Your task to perform on an android device: change the clock display to show seconds Image 0: 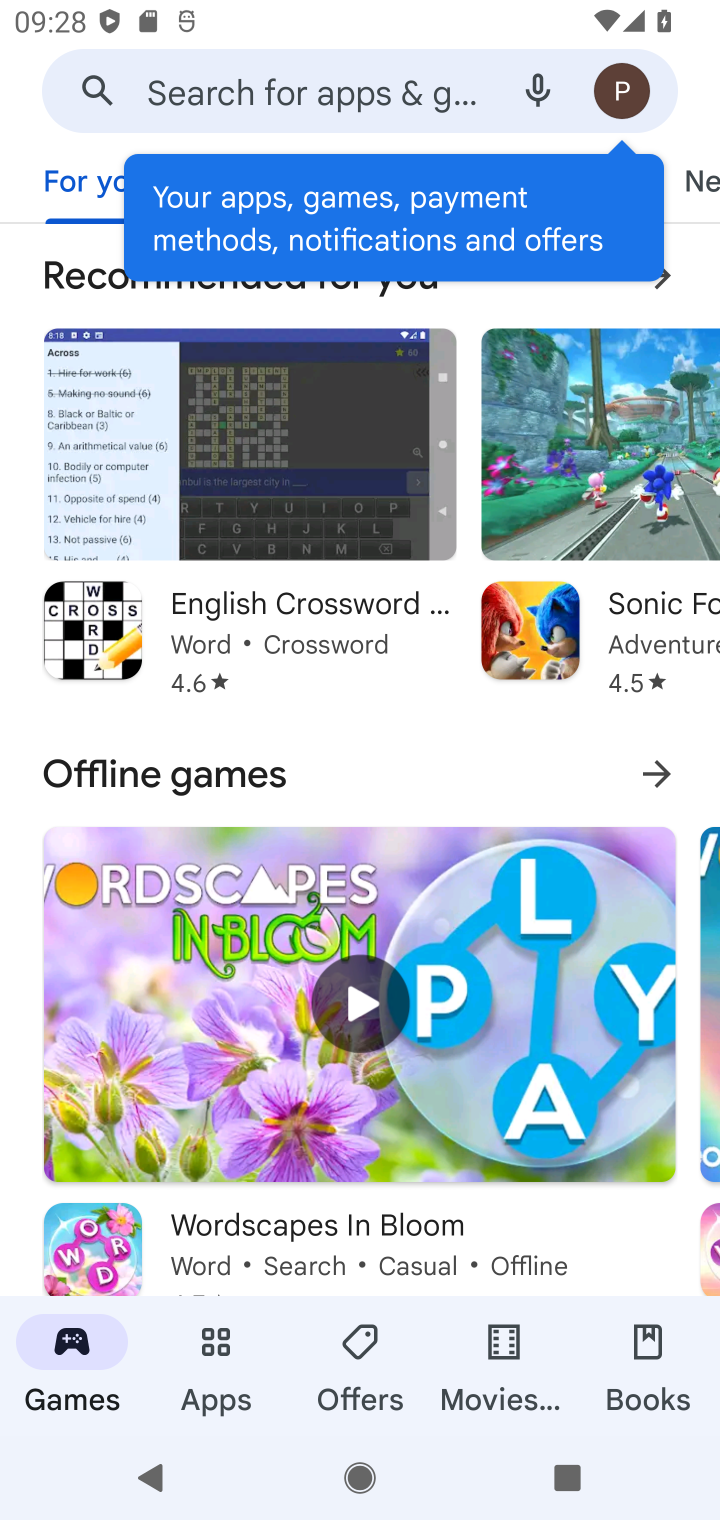
Step 0: press home button
Your task to perform on an android device: change the clock display to show seconds Image 1: 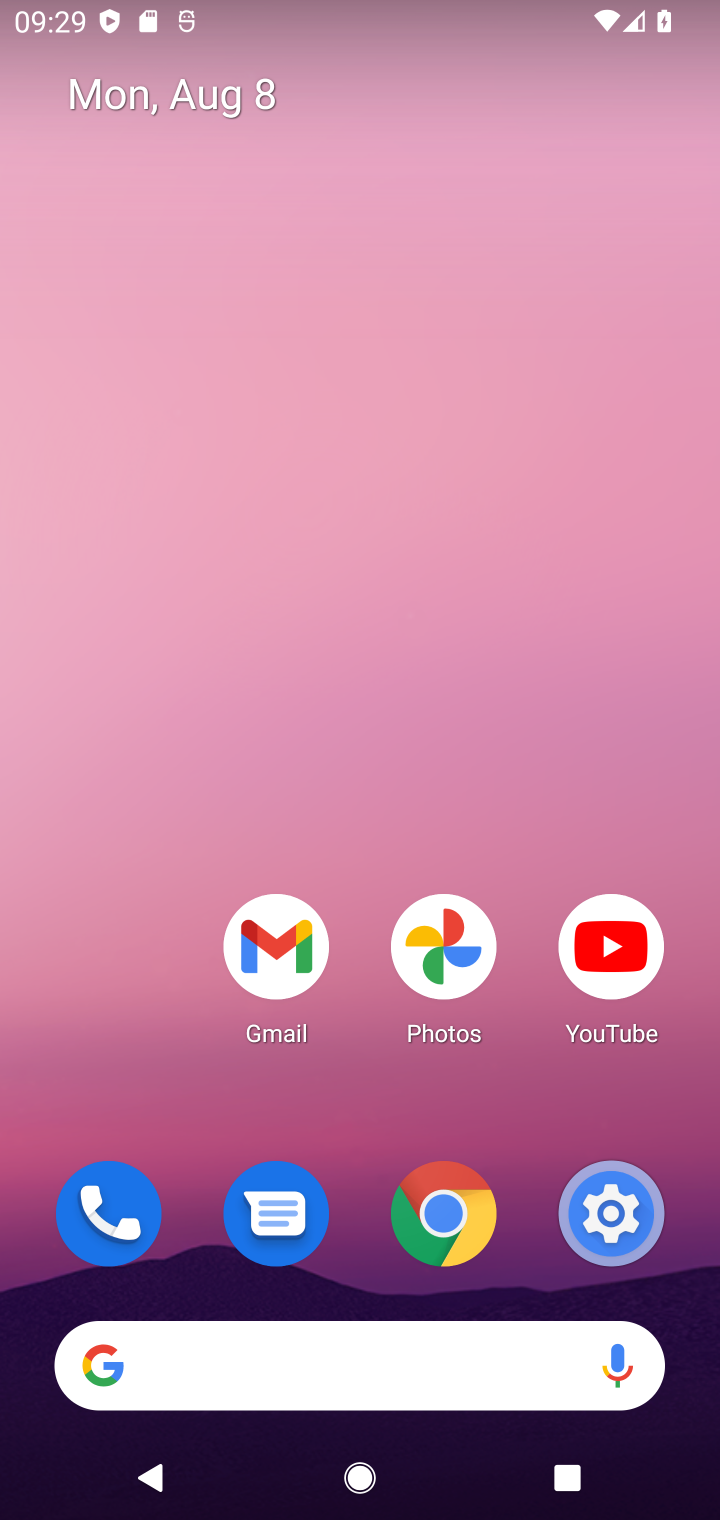
Step 1: drag from (320, 991) to (376, 5)
Your task to perform on an android device: change the clock display to show seconds Image 2: 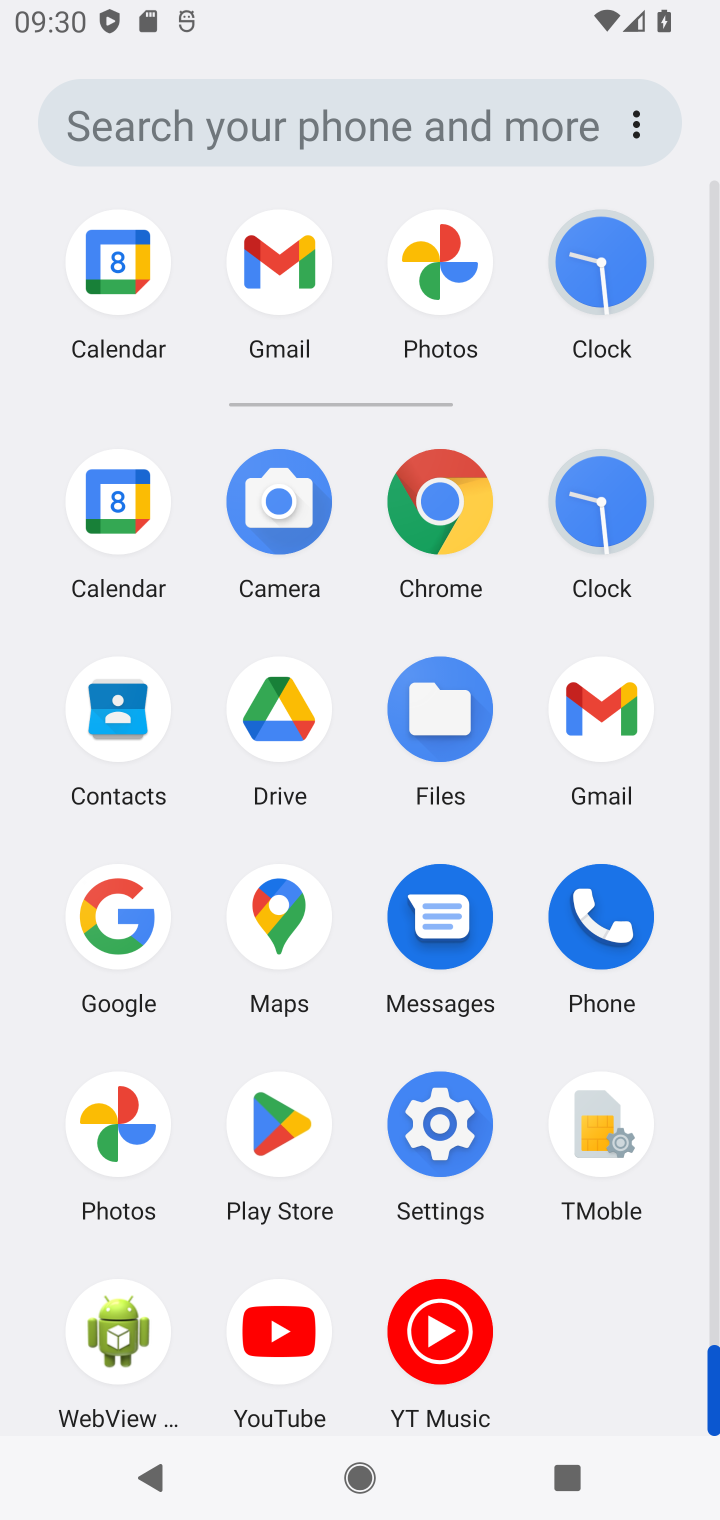
Step 2: click (601, 541)
Your task to perform on an android device: change the clock display to show seconds Image 3: 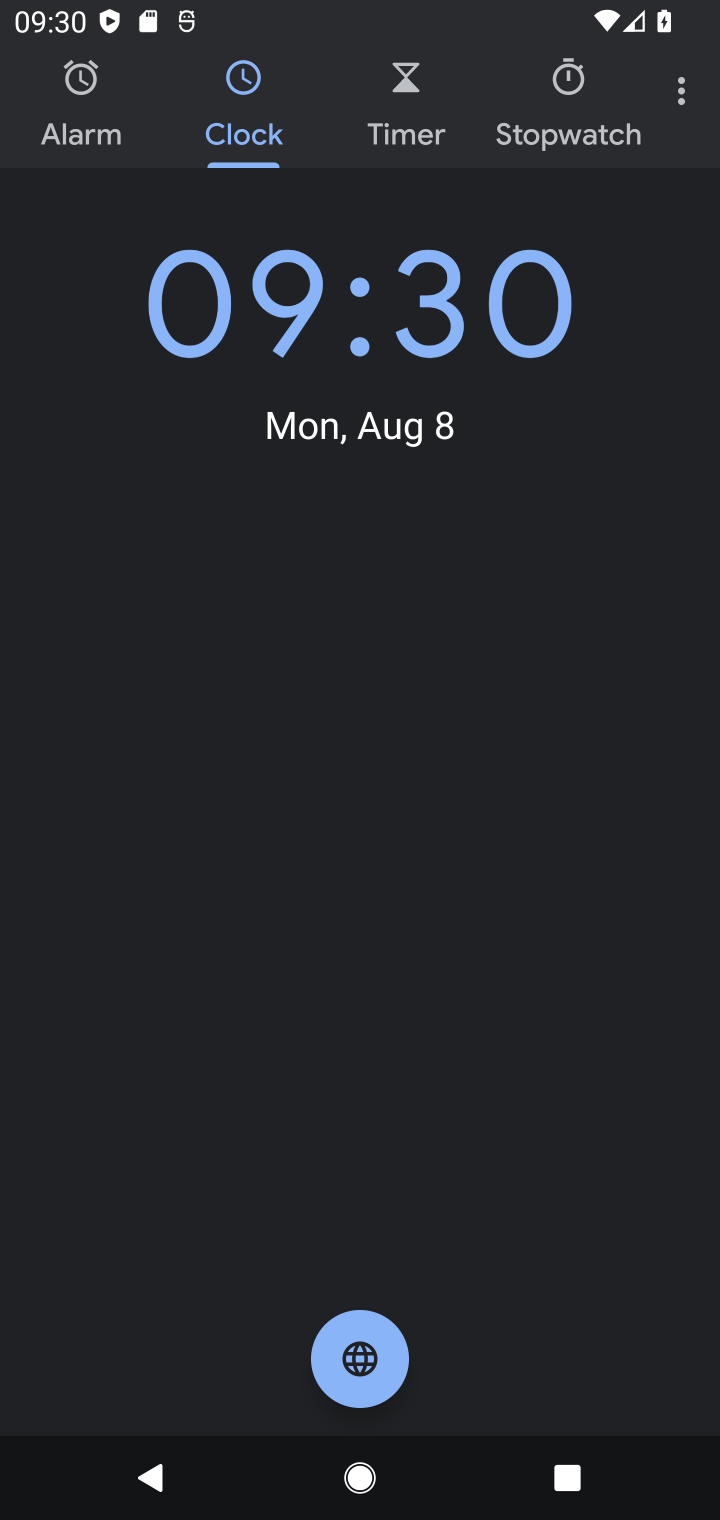
Step 3: click (695, 109)
Your task to perform on an android device: change the clock display to show seconds Image 4: 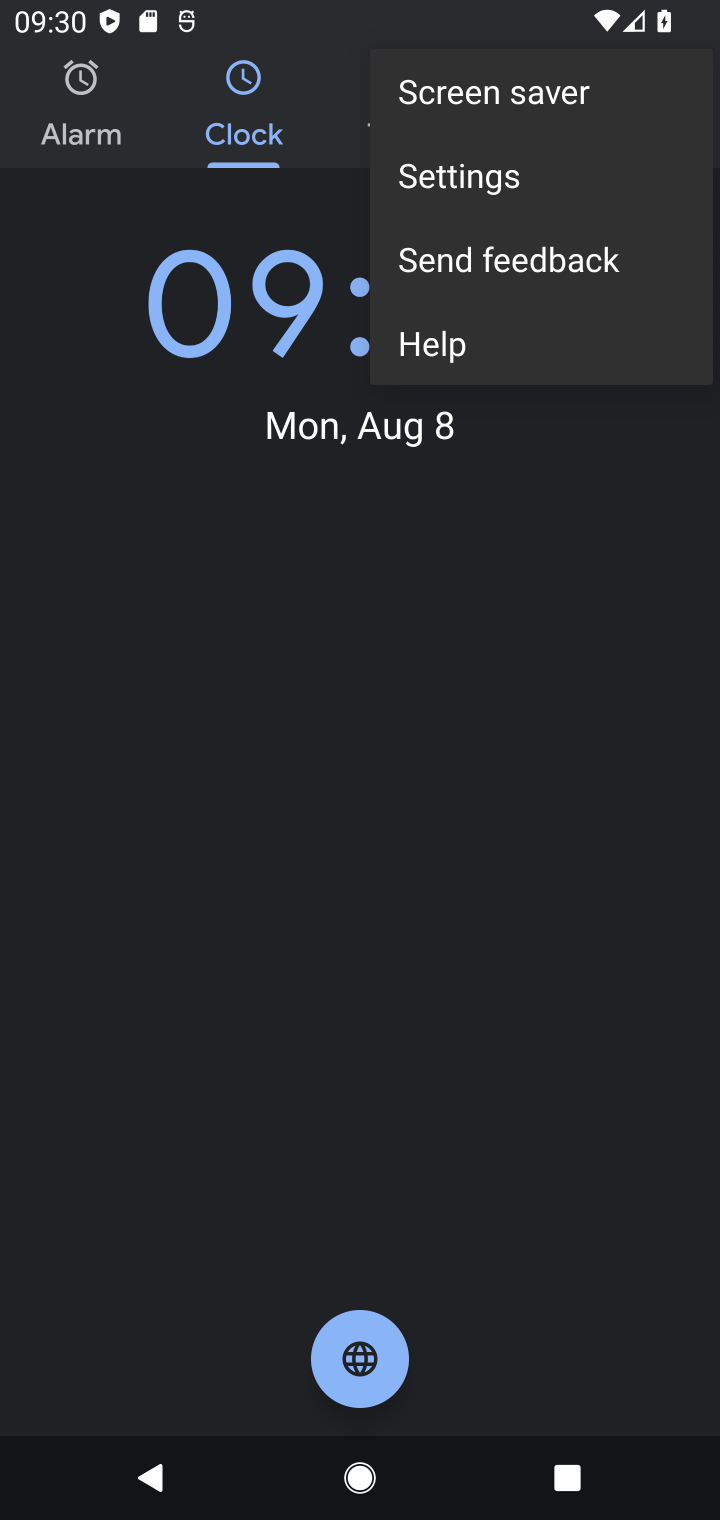
Step 4: click (547, 194)
Your task to perform on an android device: change the clock display to show seconds Image 5: 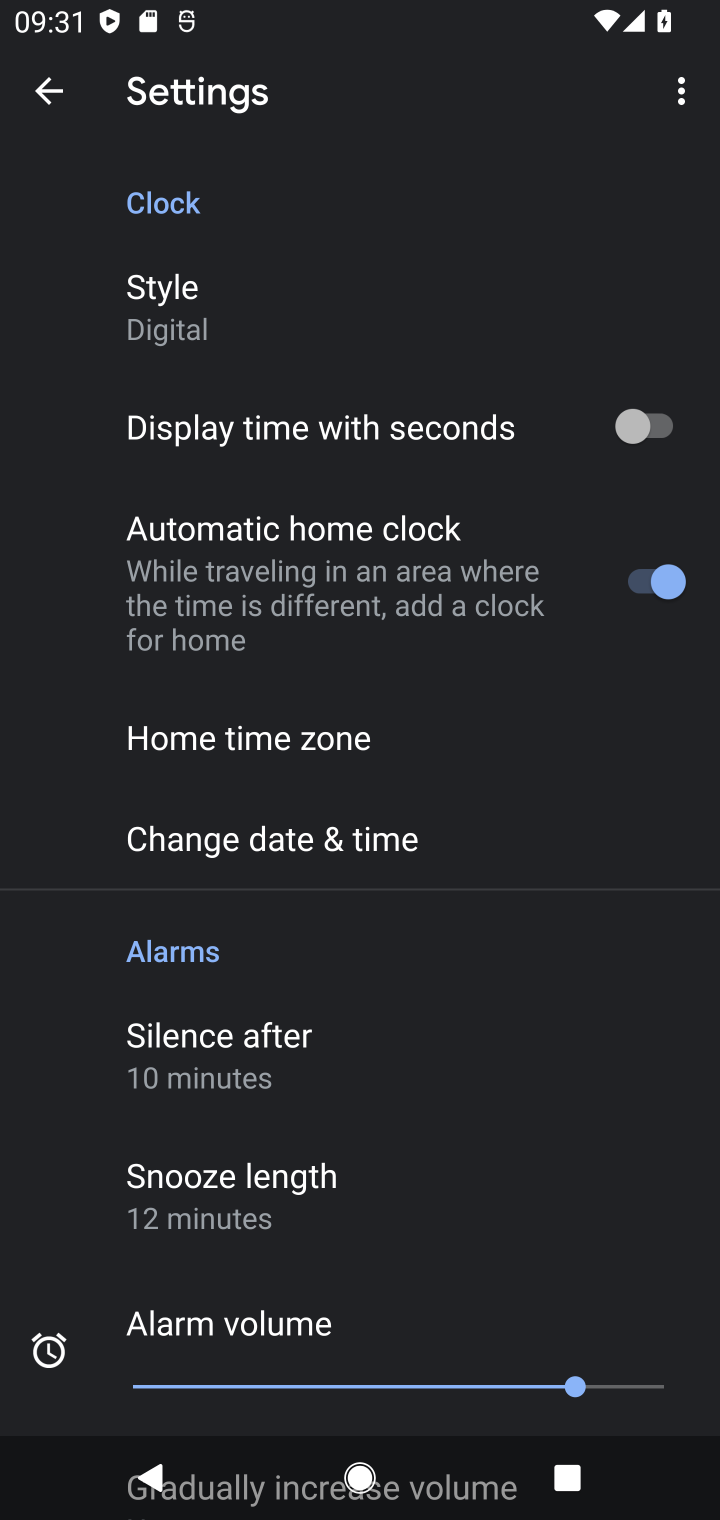
Step 5: click (646, 423)
Your task to perform on an android device: change the clock display to show seconds Image 6: 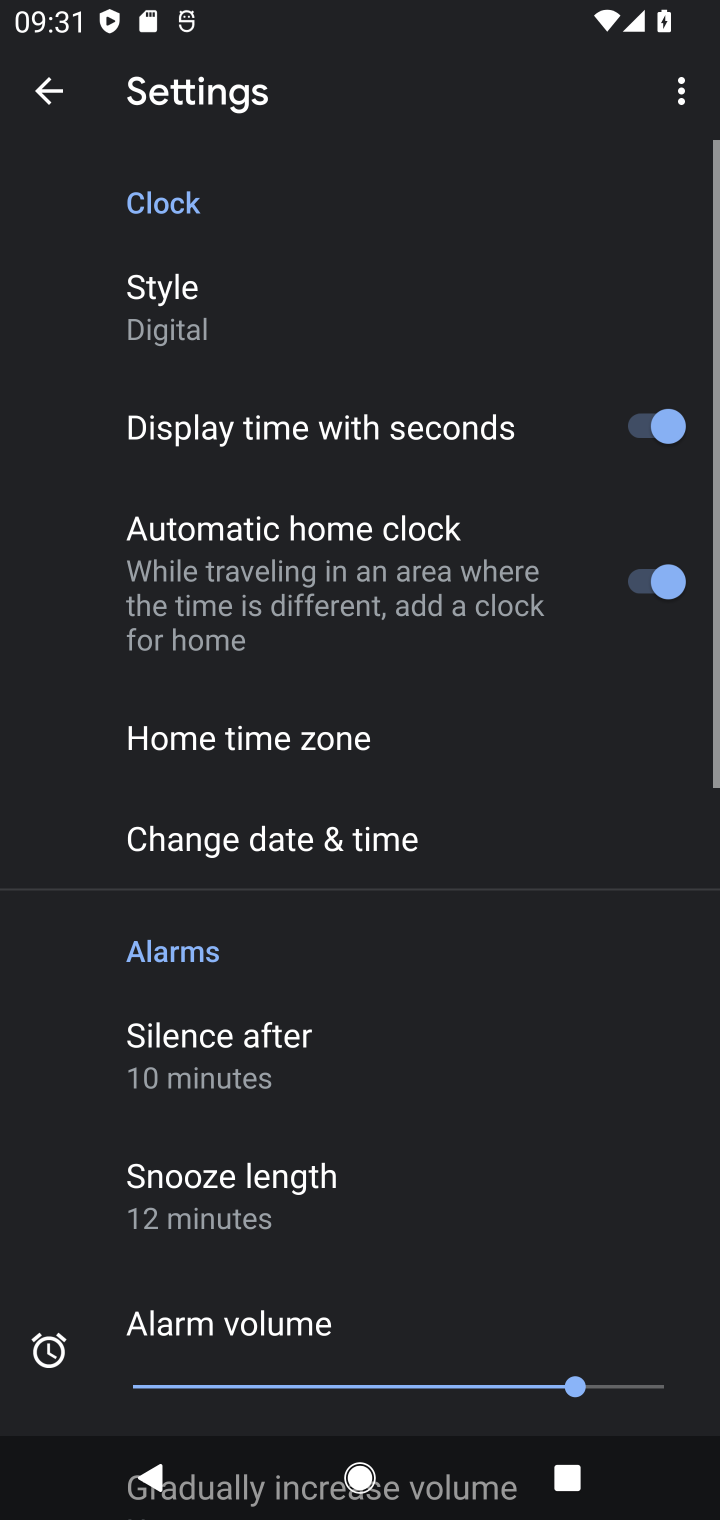
Step 6: task complete